Your task to perform on an android device: snooze an email in the gmail app Image 0: 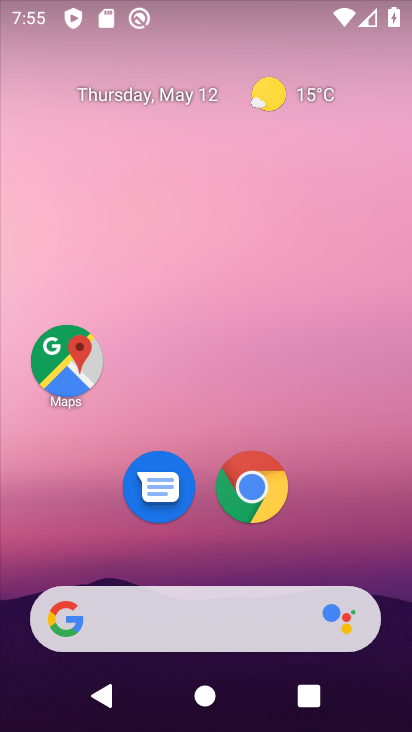
Step 0: drag from (319, 468) to (237, 0)
Your task to perform on an android device: snooze an email in the gmail app Image 1: 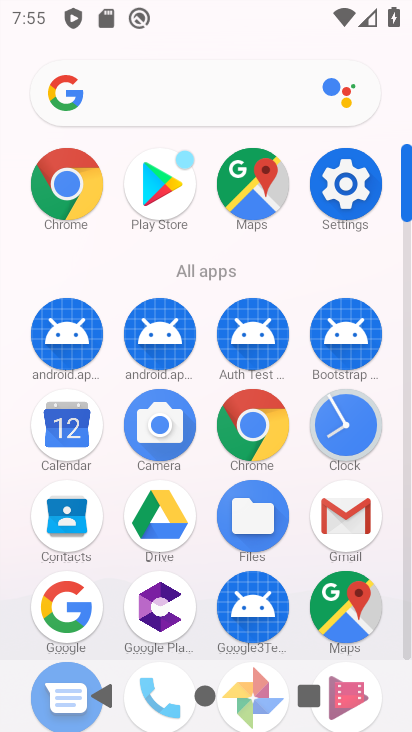
Step 1: click (355, 546)
Your task to perform on an android device: snooze an email in the gmail app Image 2: 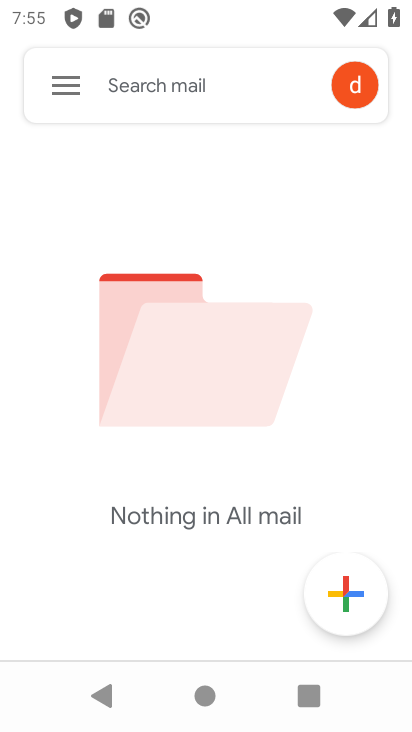
Step 2: task complete